Your task to perform on an android device: Go to eBay Image 0: 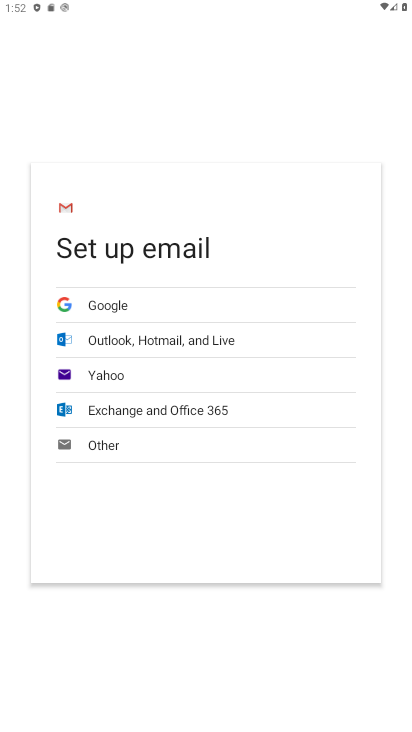
Step 0: press home button
Your task to perform on an android device: Go to eBay Image 1: 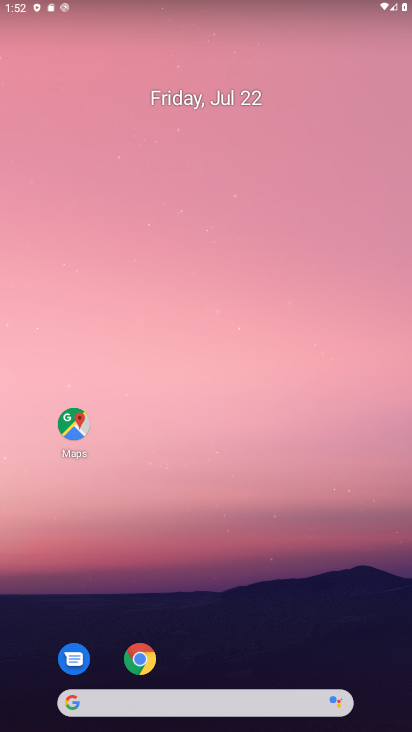
Step 1: click (145, 657)
Your task to perform on an android device: Go to eBay Image 2: 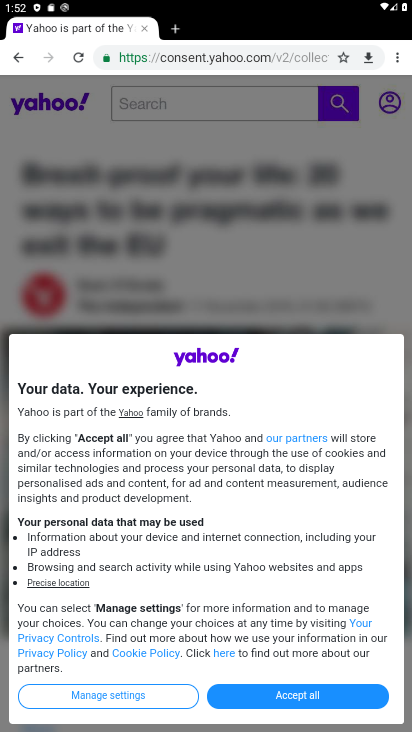
Step 2: click (398, 60)
Your task to perform on an android device: Go to eBay Image 3: 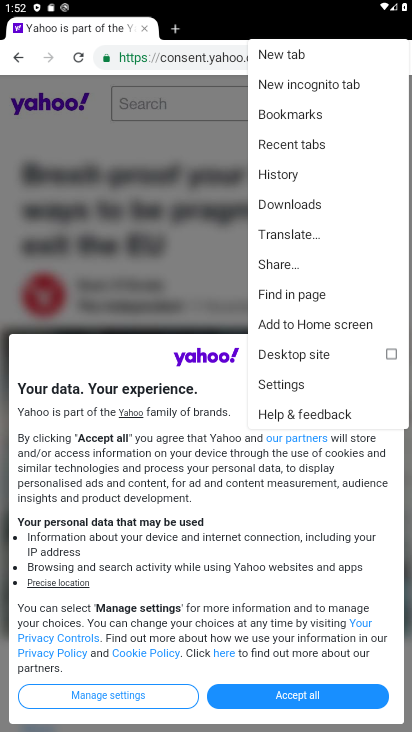
Step 3: click (174, 33)
Your task to perform on an android device: Go to eBay Image 4: 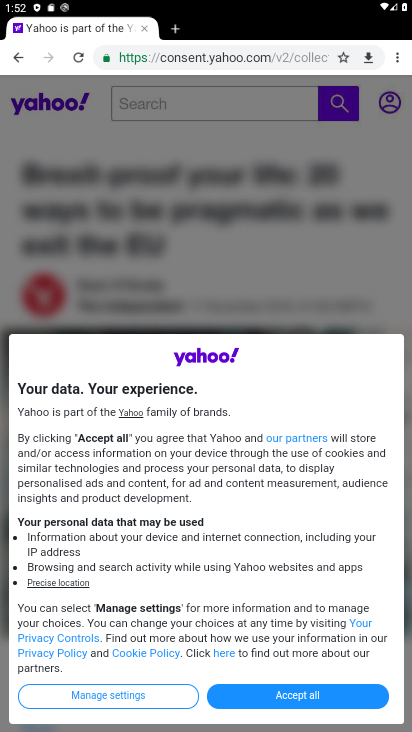
Step 4: click (174, 33)
Your task to perform on an android device: Go to eBay Image 5: 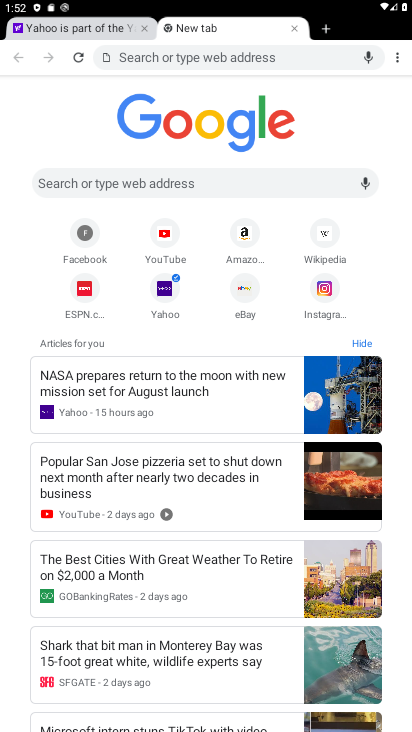
Step 5: click (144, 29)
Your task to perform on an android device: Go to eBay Image 6: 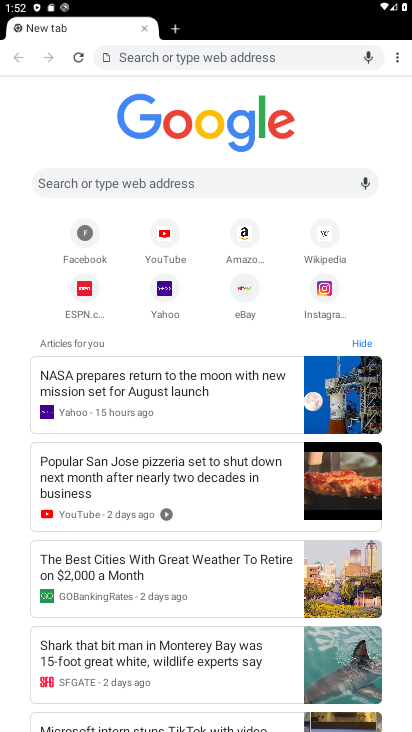
Step 6: click (240, 295)
Your task to perform on an android device: Go to eBay Image 7: 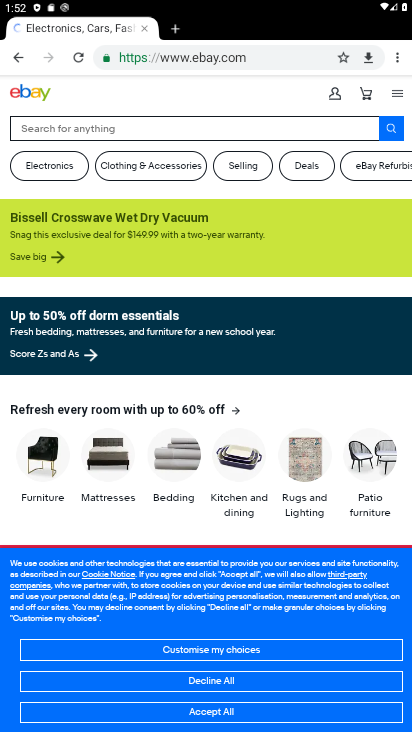
Step 7: task complete